Your task to perform on an android device: Go to wifi settings Image 0: 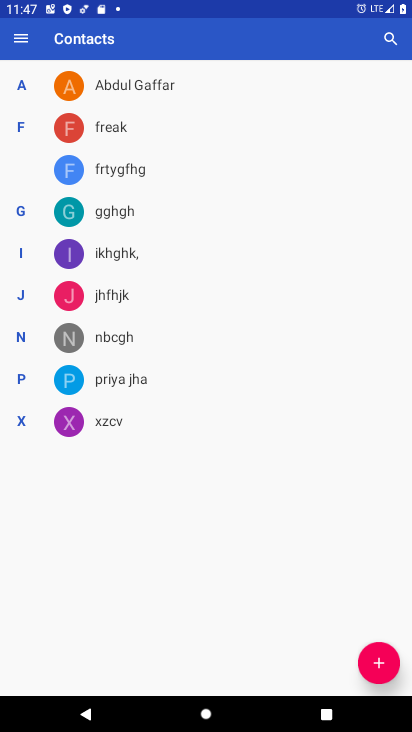
Step 0: press home button
Your task to perform on an android device: Go to wifi settings Image 1: 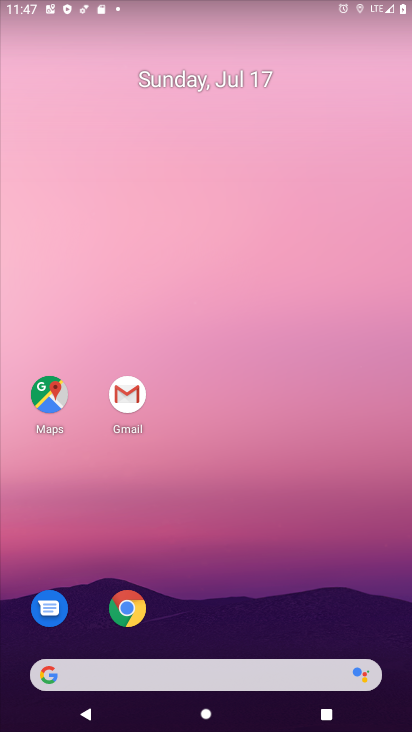
Step 1: click (212, 488)
Your task to perform on an android device: Go to wifi settings Image 2: 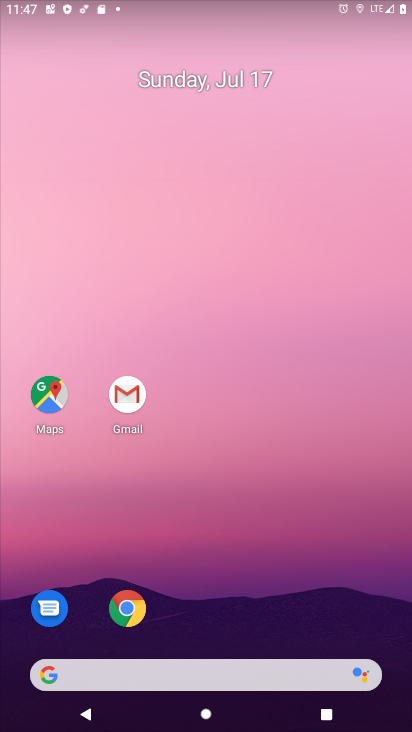
Step 2: drag from (220, 656) to (330, 90)
Your task to perform on an android device: Go to wifi settings Image 3: 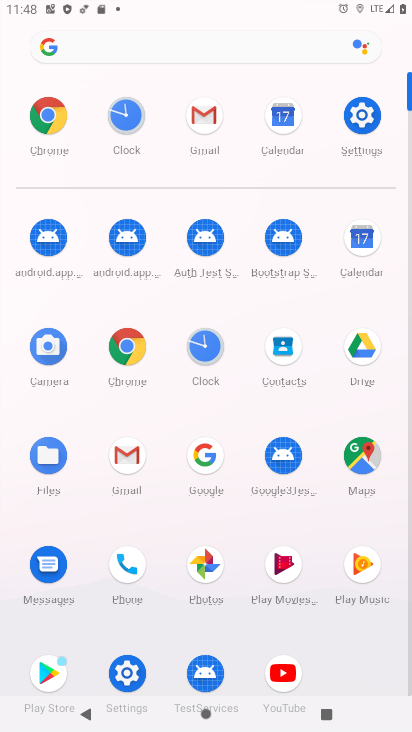
Step 3: click (132, 661)
Your task to perform on an android device: Go to wifi settings Image 4: 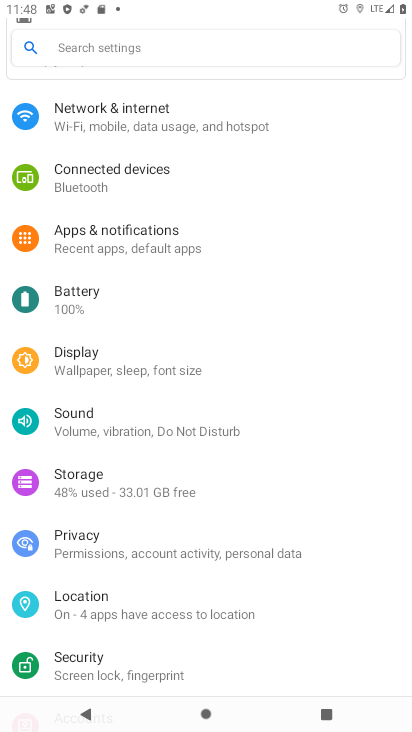
Step 4: click (115, 129)
Your task to perform on an android device: Go to wifi settings Image 5: 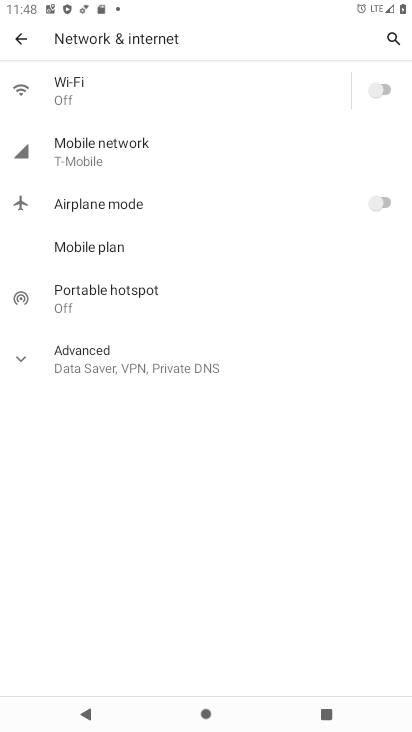
Step 5: click (99, 96)
Your task to perform on an android device: Go to wifi settings Image 6: 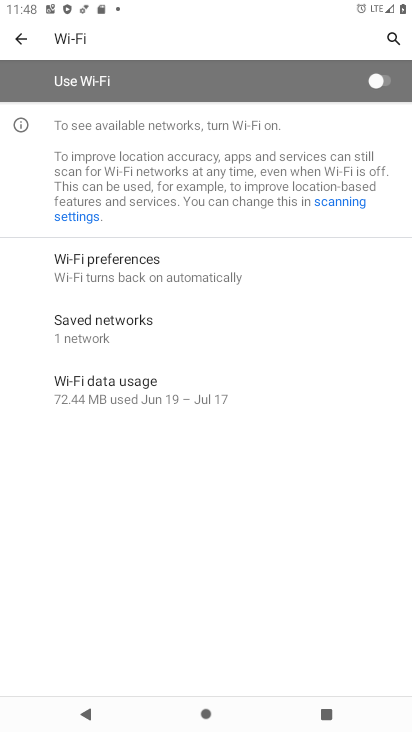
Step 6: task complete